Your task to perform on an android device: Open Yahoo.com Image 0: 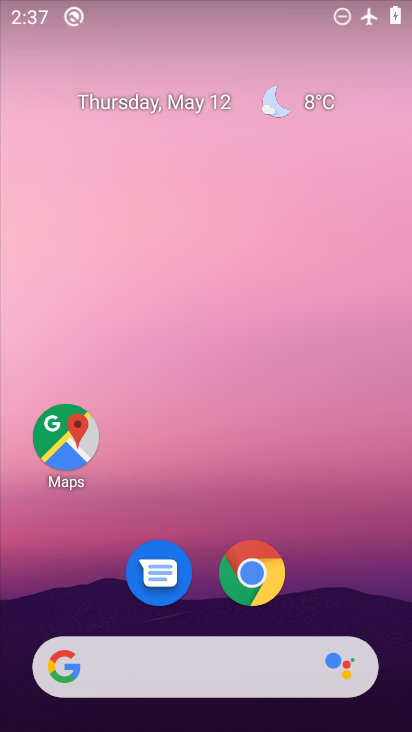
Step 0: drag from (360, 593) to (175, 88)
Your task to perform on an android device: Open Yahoo.com Image 1: 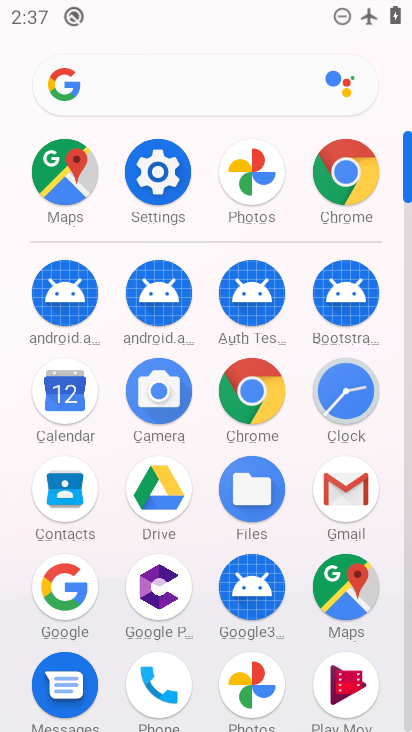
Step 1: click (340, 183)
Your task to perform on an android device: Open Yahoo.com Image 2: 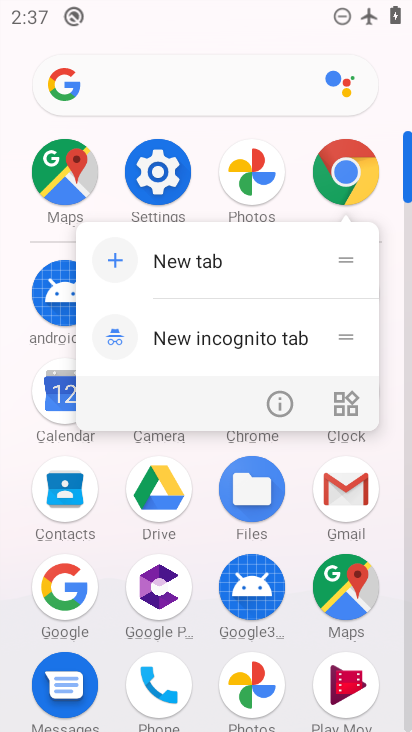
Step 2: click (338, 163)
Your task to perform on an android device: Open Yahoo.com Image 3: 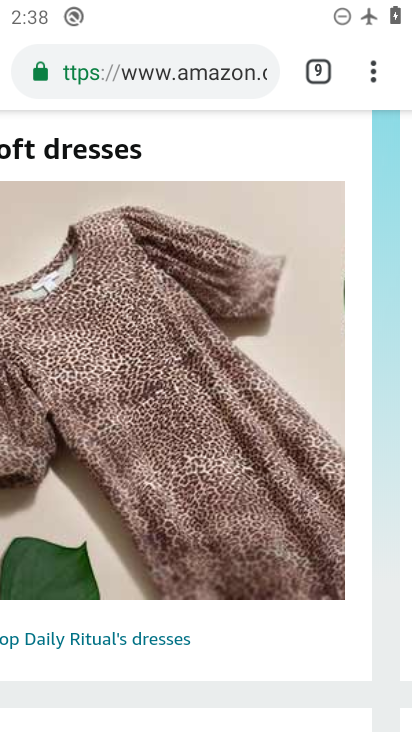
Step 3: press back button
Your task to perform on an android device: Open Yahoo.com Image 4: 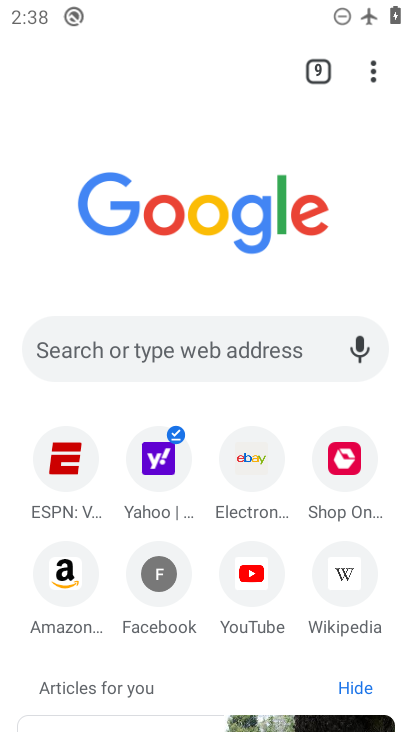
Step 4: click (160, 452)
Your task to perform on an android device: Open Yahoo.com Image 5: 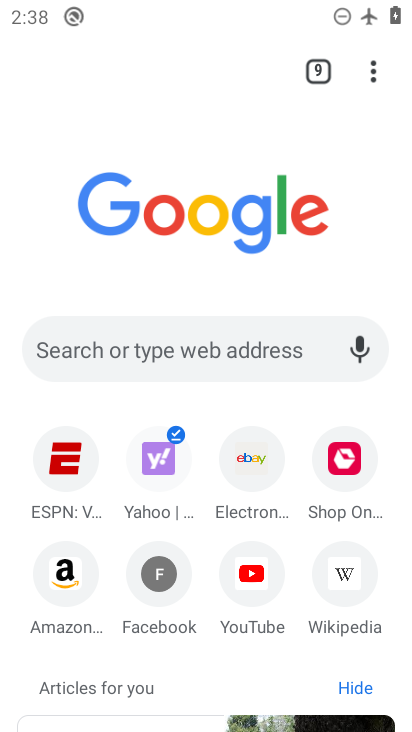
Step 5: click (169, 463)
Your task to perform on an android device: Open Yahoo.com Image 6: 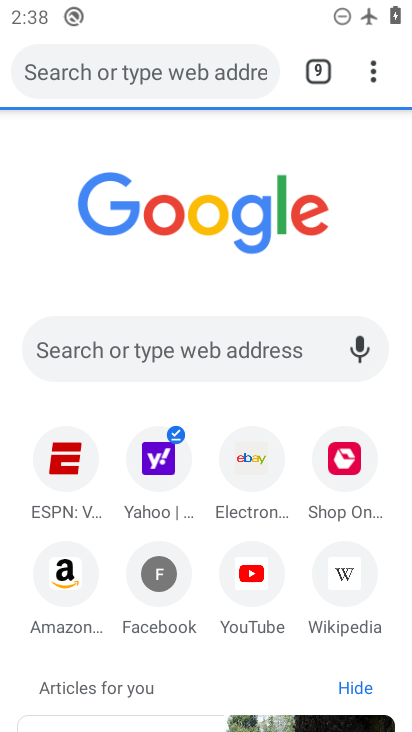
Step 6: click (169, 463)
Your task to perform on an android device: Open Yahoo.com Image 7: 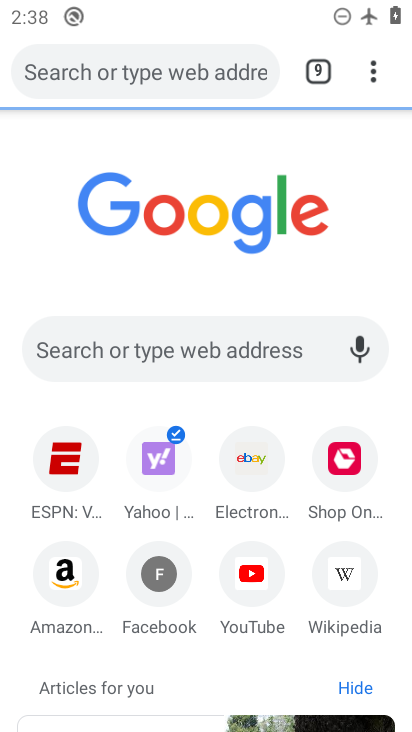
Step 7: click (163, 461)
Your task to perform on an android device: Open Yahoo.com Image 8: 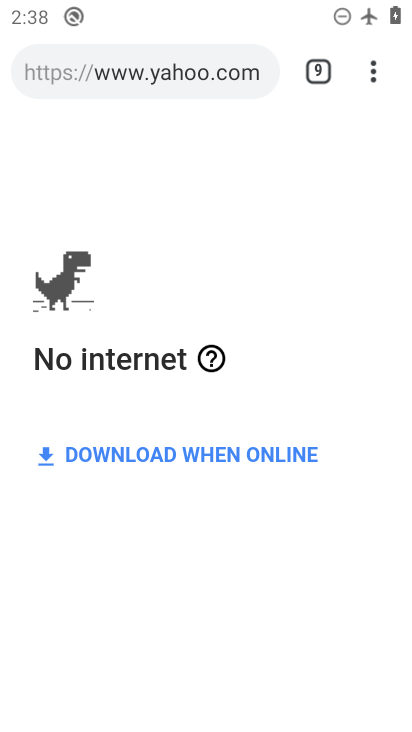
Step 8: task complete